Your task to perform on an android device: Play the latest video from the Huffington Post Image 0: 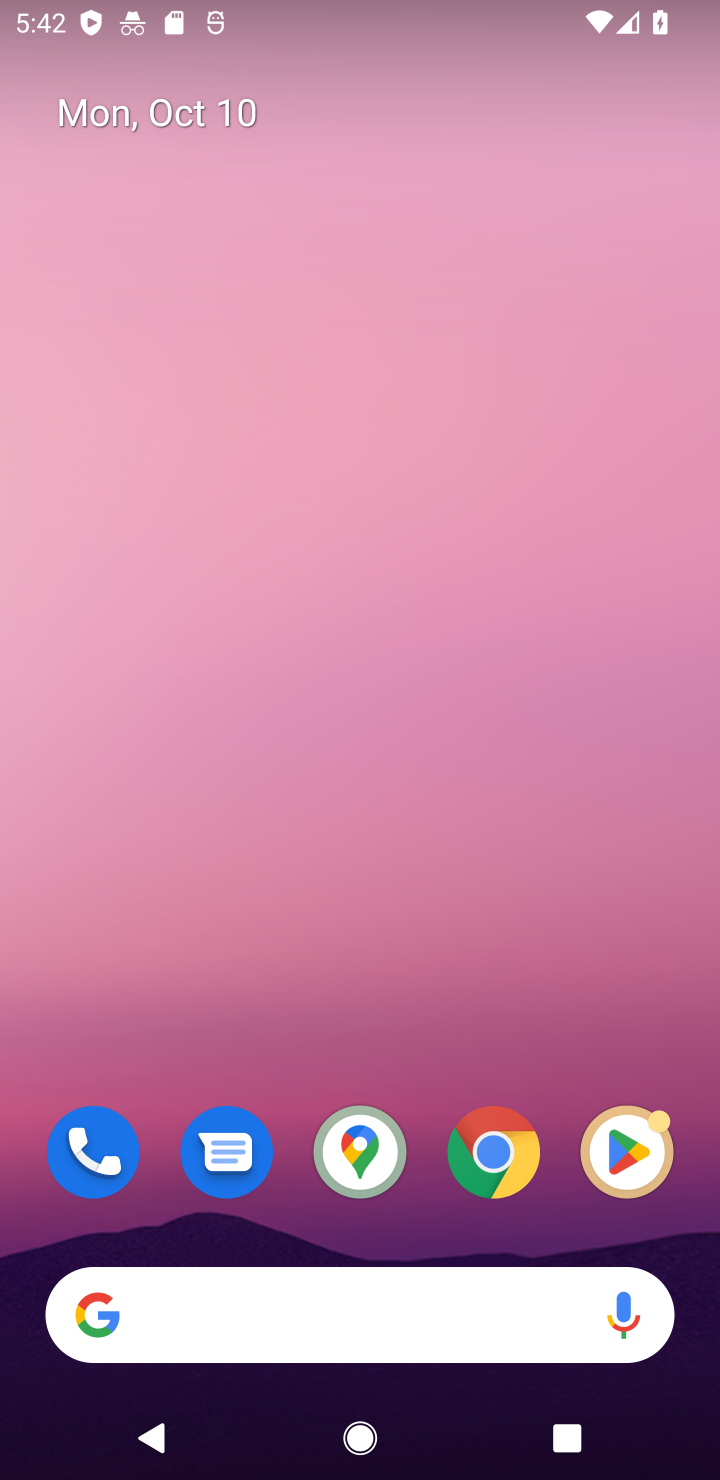
Step 0: drag from (364, 1241) to (333, 161)
Your task to perform on an android device: Play the latest video from the Huffington Post Image 1: 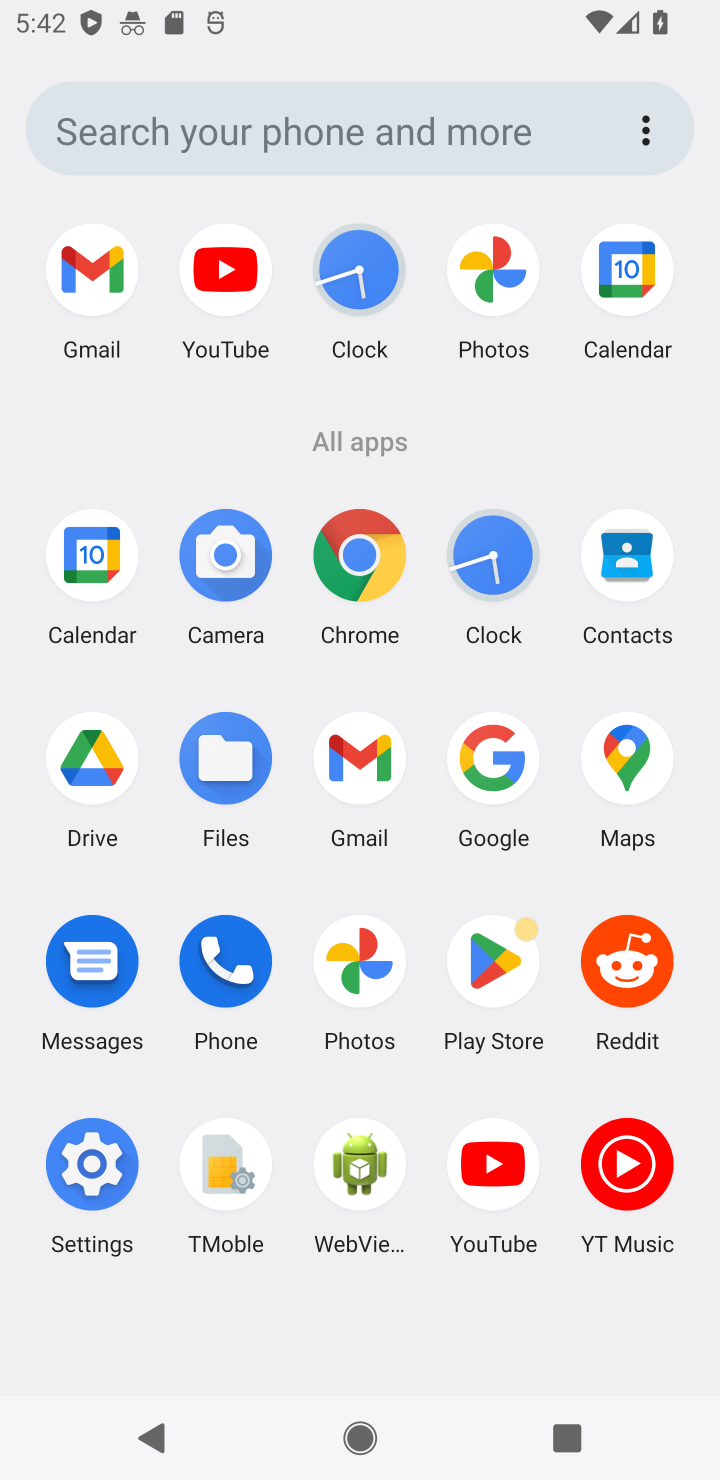
Step 1: click (224, 268)
Your task to perform on an android device: Play the latest video from the Huffington Post Image 2: 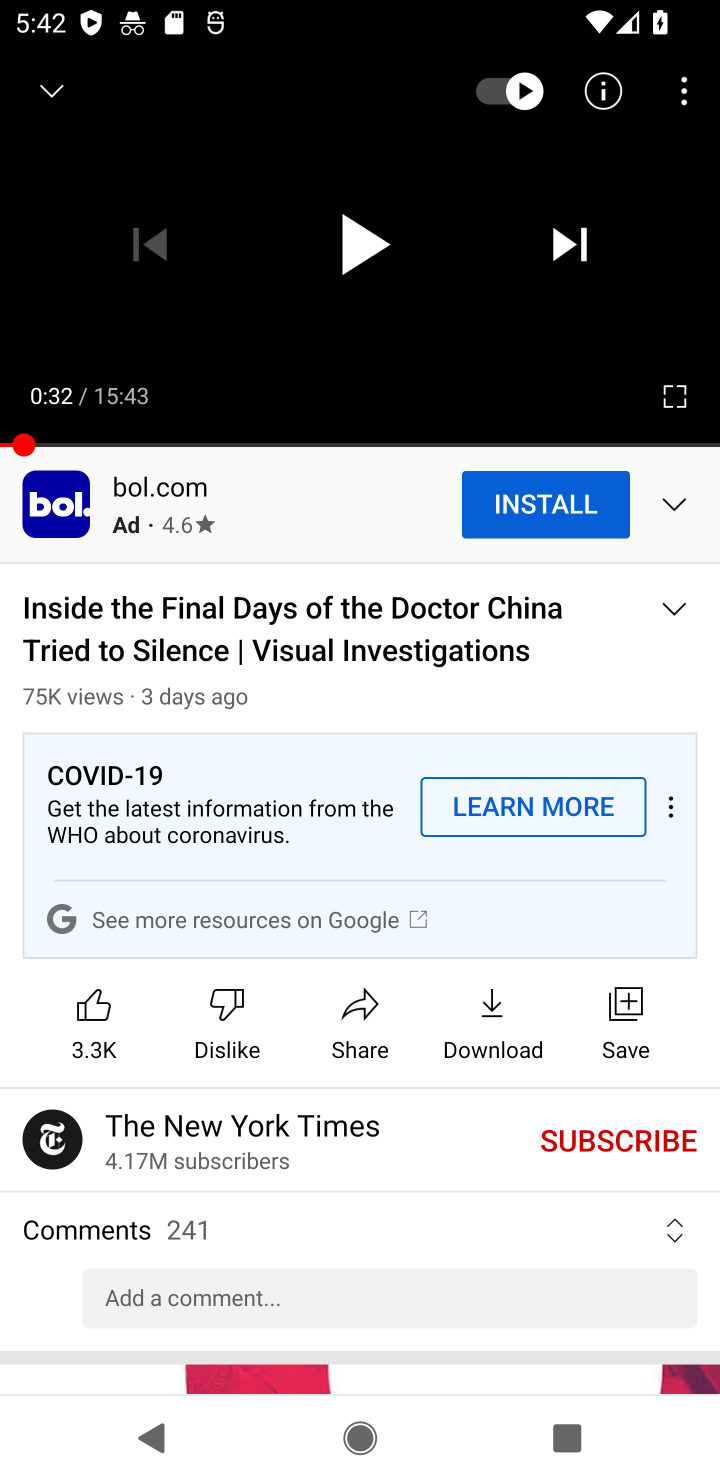
Step 2: press back button
Your task to perform on an android device: Play the latest video from the Huffington Post Image 3: 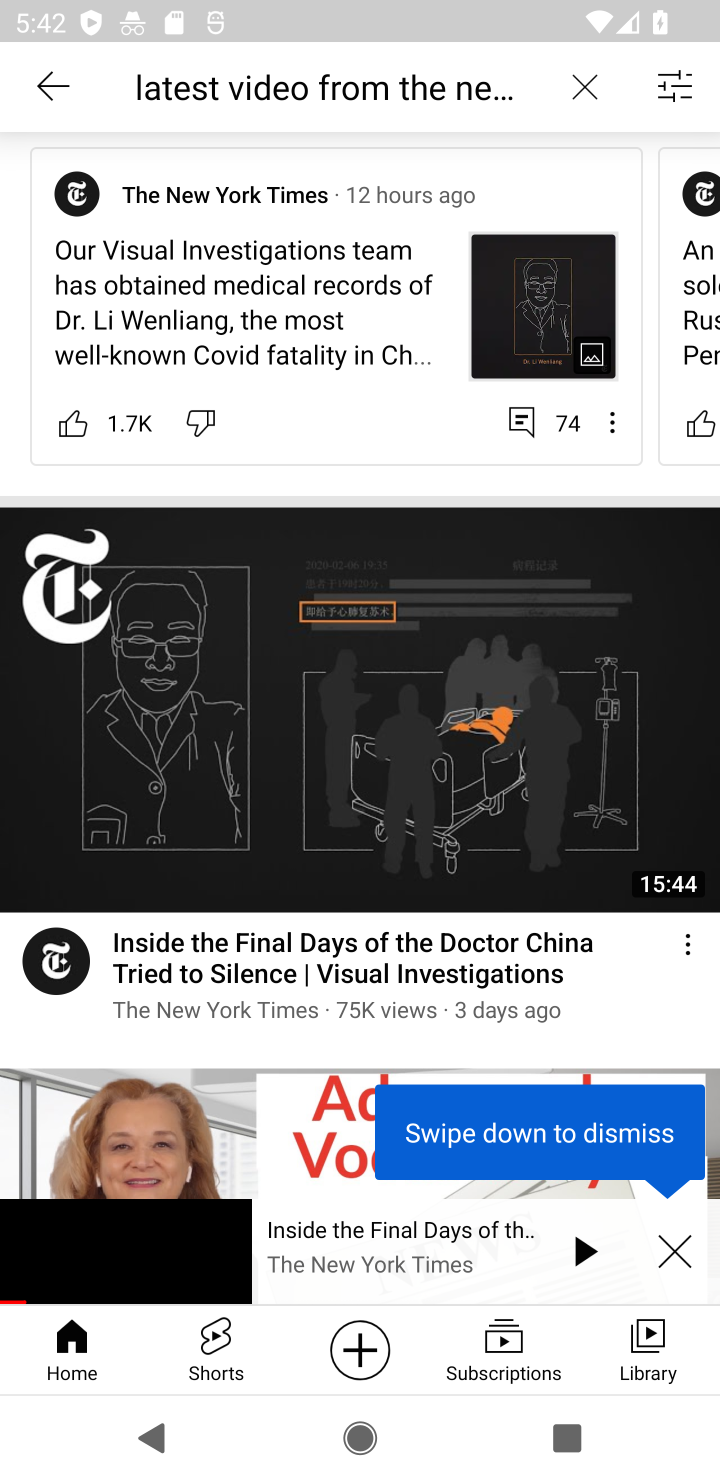
Step 3: click (675, 1253)
Your task to perform on an android device: Play the latest video from the Huffington Post Image 4: 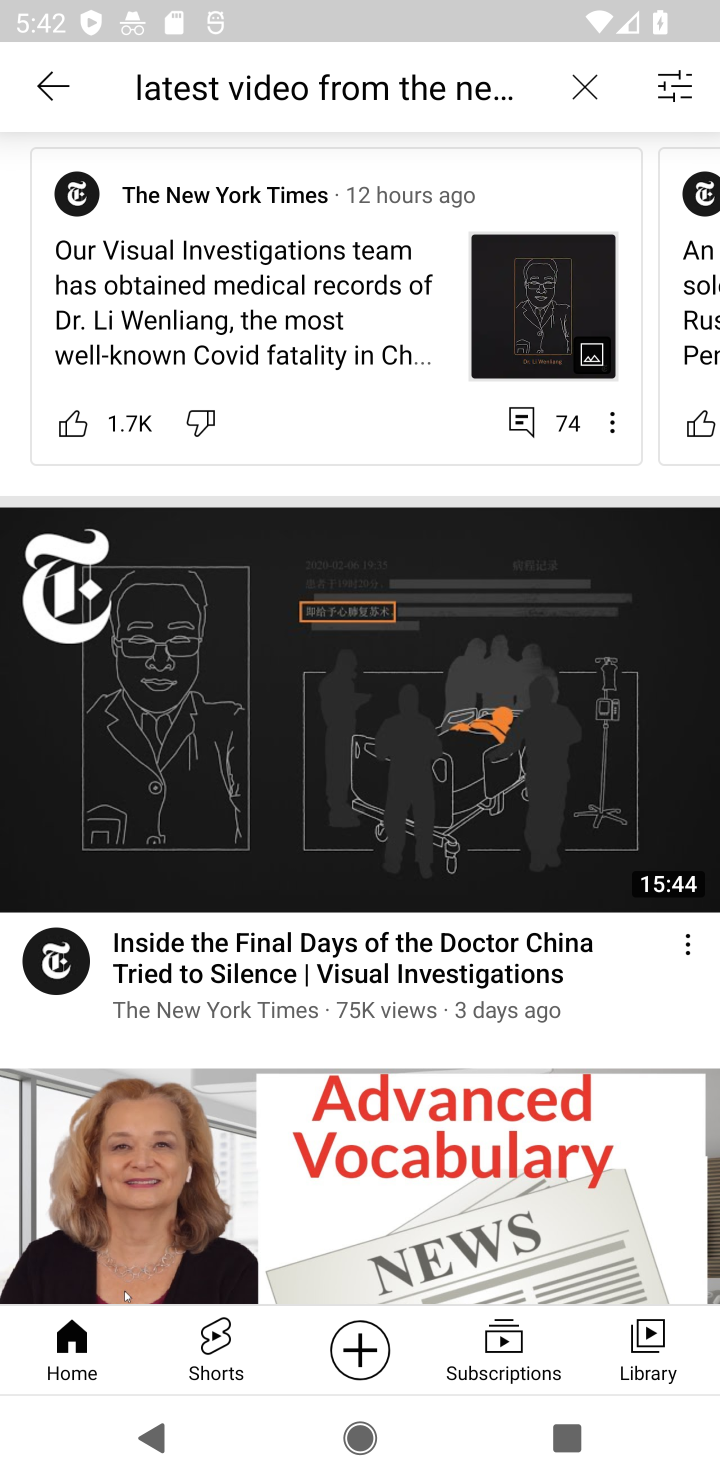
Step 4: click (585, 77)
Your task to perform on an android device: Play the latest video from the Huffington Post Image 5: 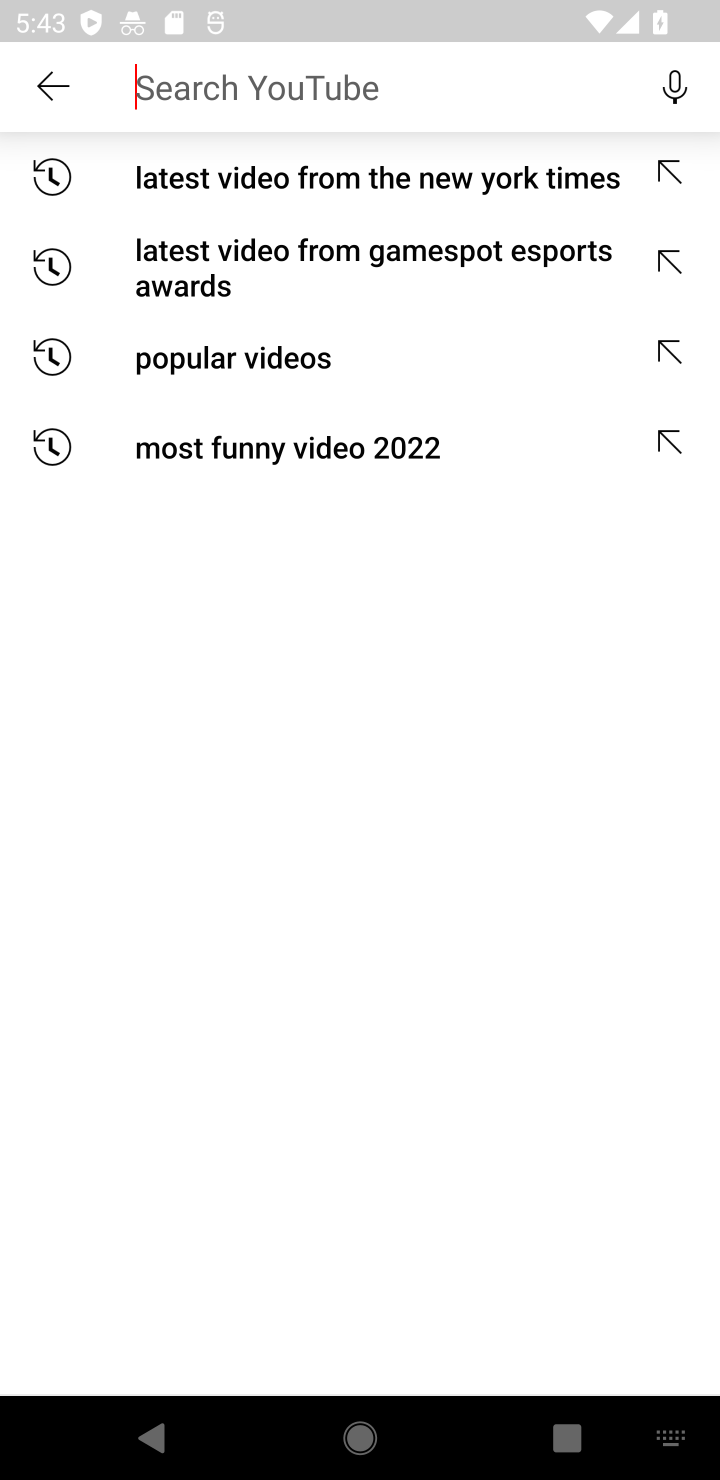
Step 5: type "latest video from the Huffington Post"
Your task to perform on an android device: Play the latest video from the Huffington Post Image 6: 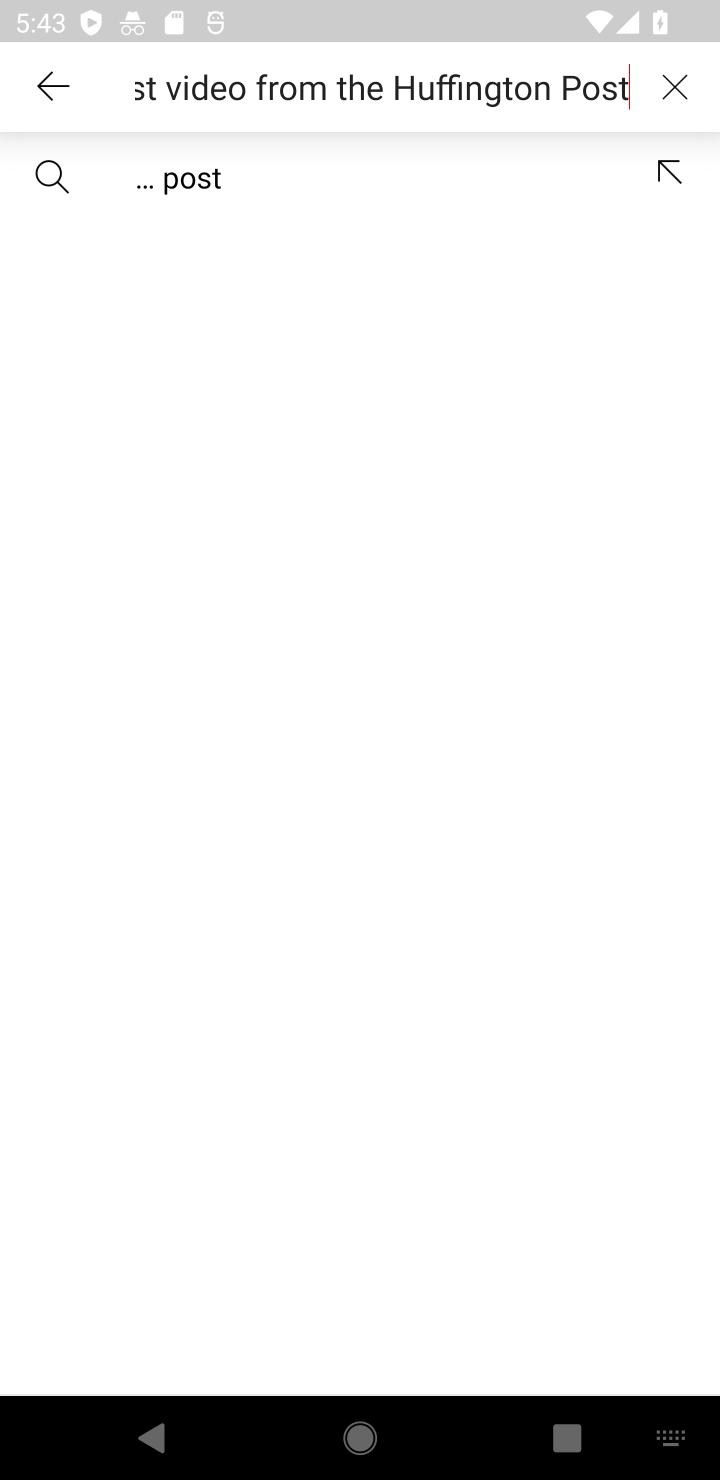
Step 6: type ""
Your task to perform on an android device: Play the latest video from the Huffington Post Image 7: 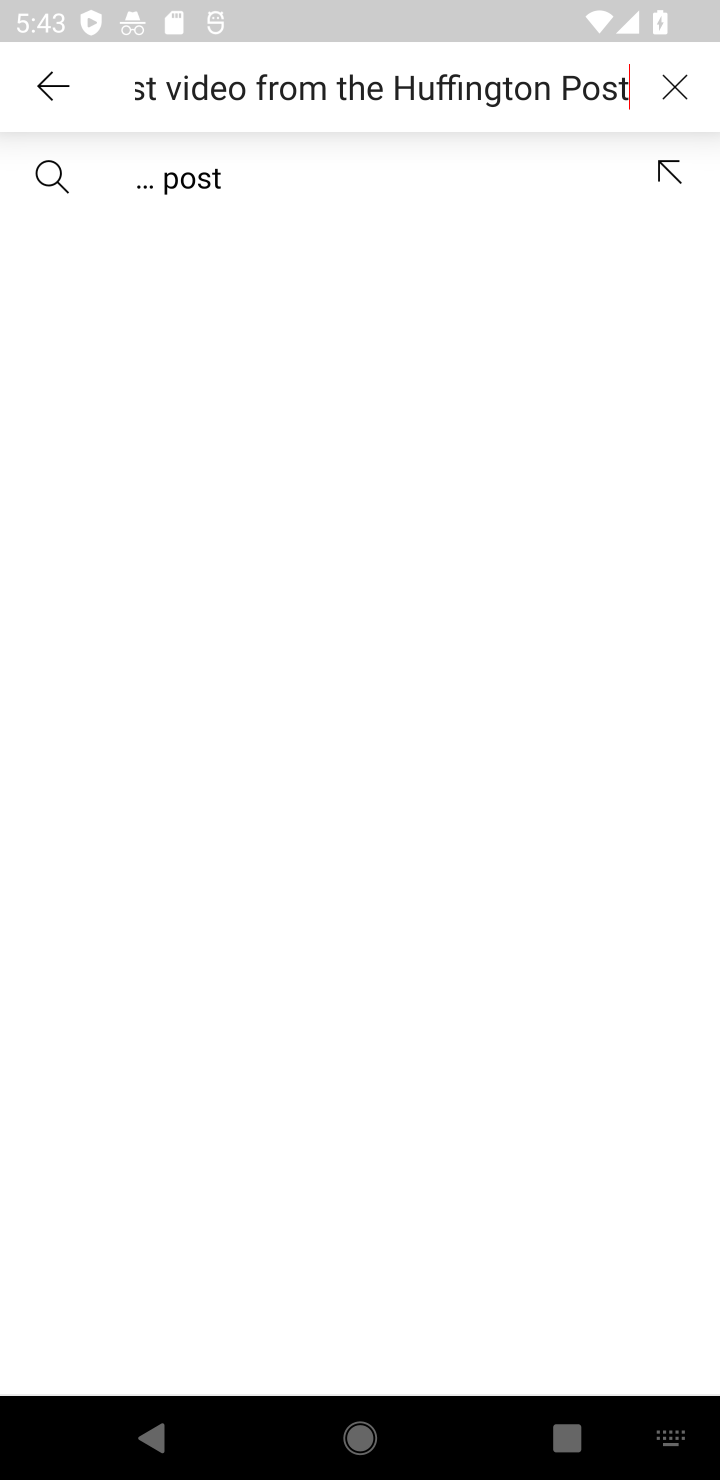
Step 7: click (198, 193)
Your task to perform on an android device: Play the latest video from the Huffington Post Image 8: 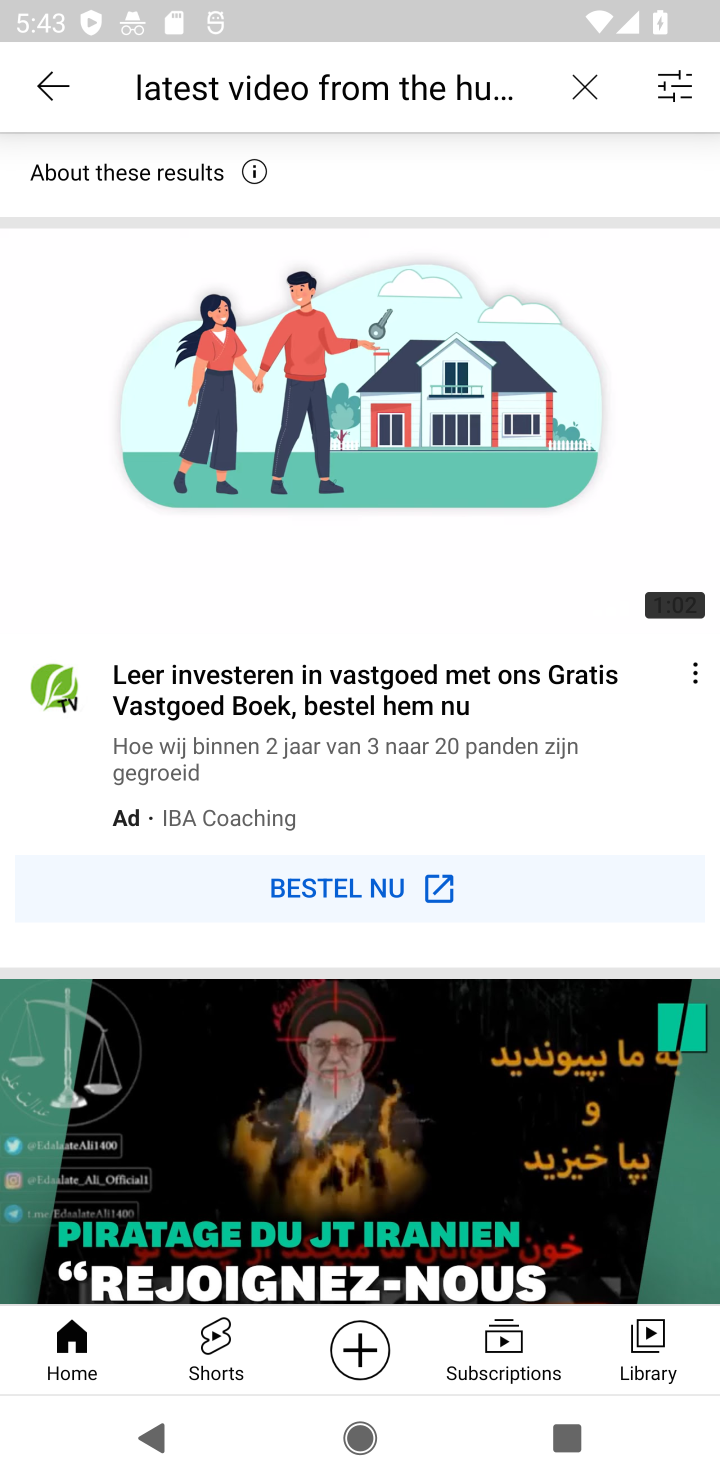
Step 8: drag from (181, 1094) to (431, 634)
Your task to perform on an android device: Play the latest video from the Huffington Post Image 9: 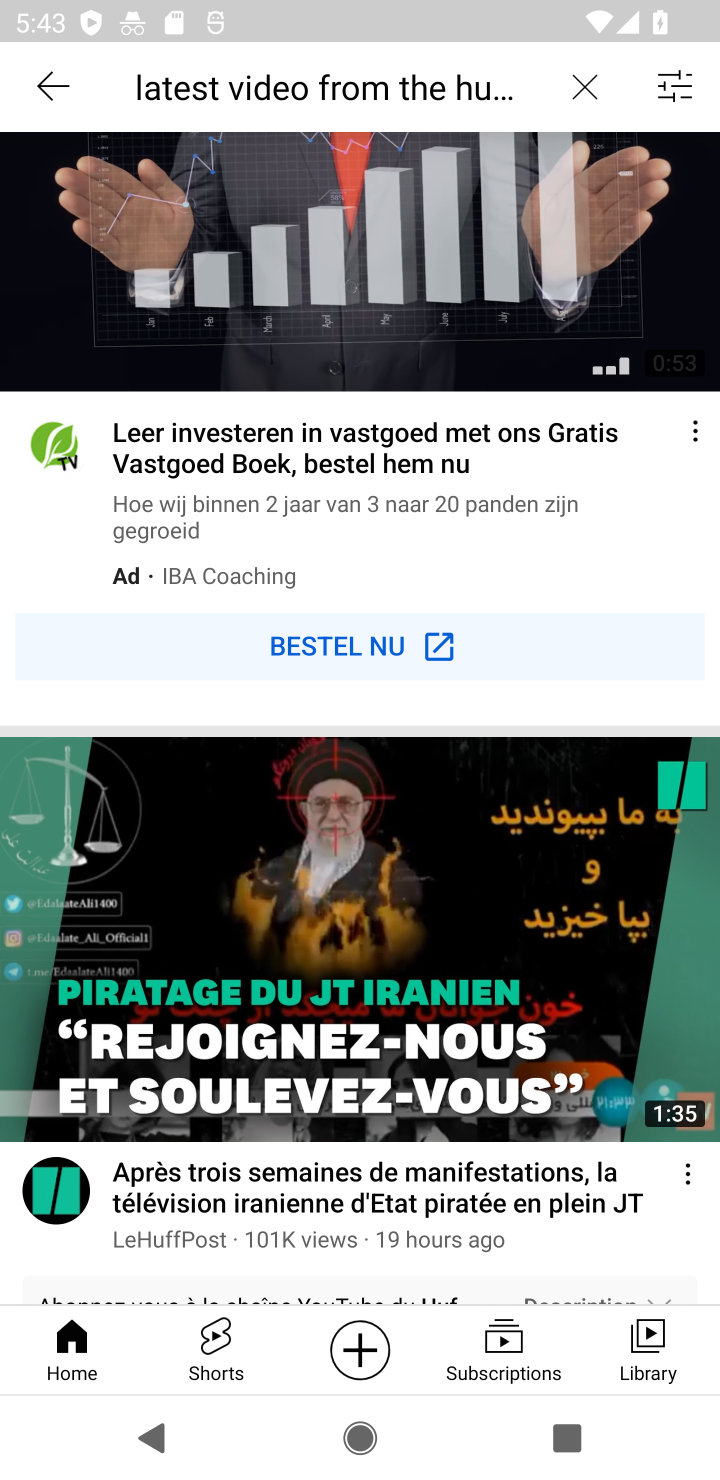
Step 9: drag from (388, 1193) to (497, 832)
Your task to perform on an android device: Play the latest video from the Huffington Post Image 10: 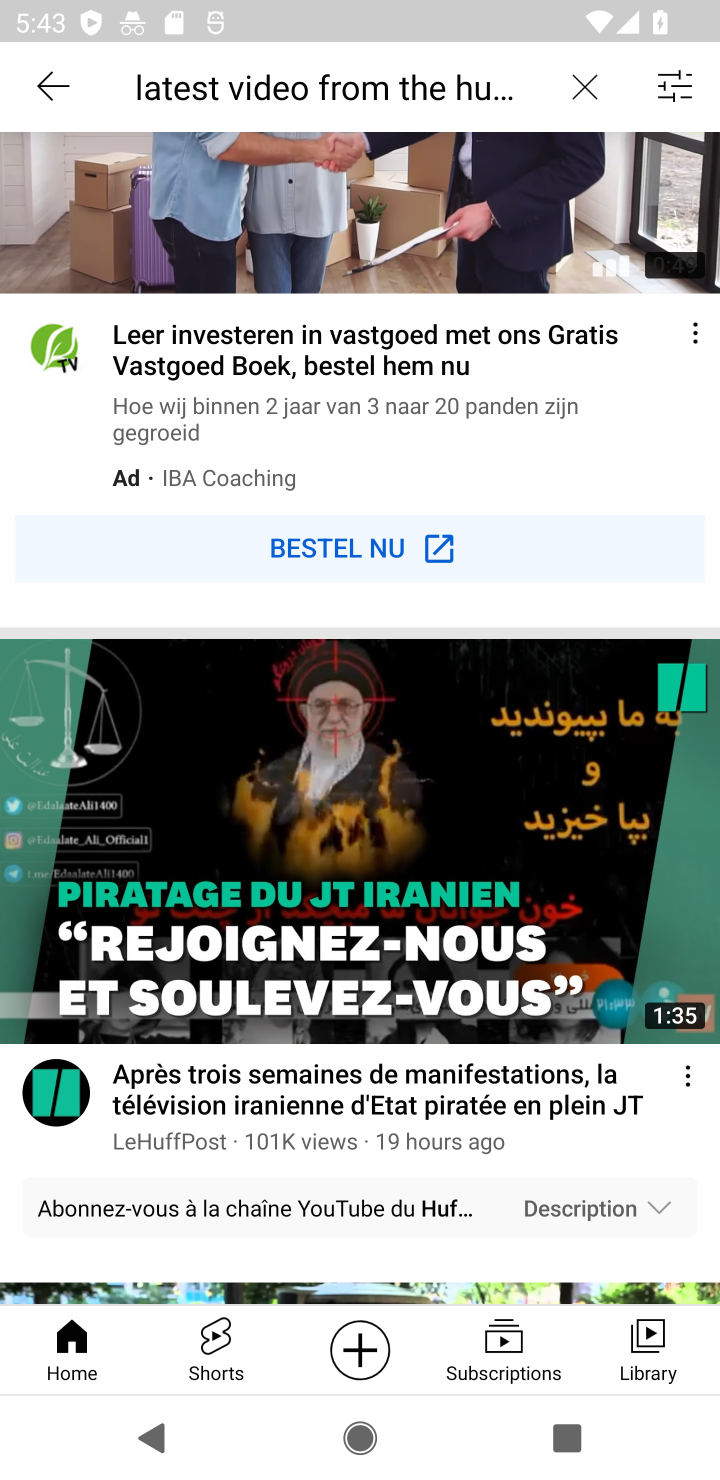
Step 10: drag from (307, 1202) to (476, 843)
Your task to perform on an android device: Play the latest video from the Huffington Post Image 11: 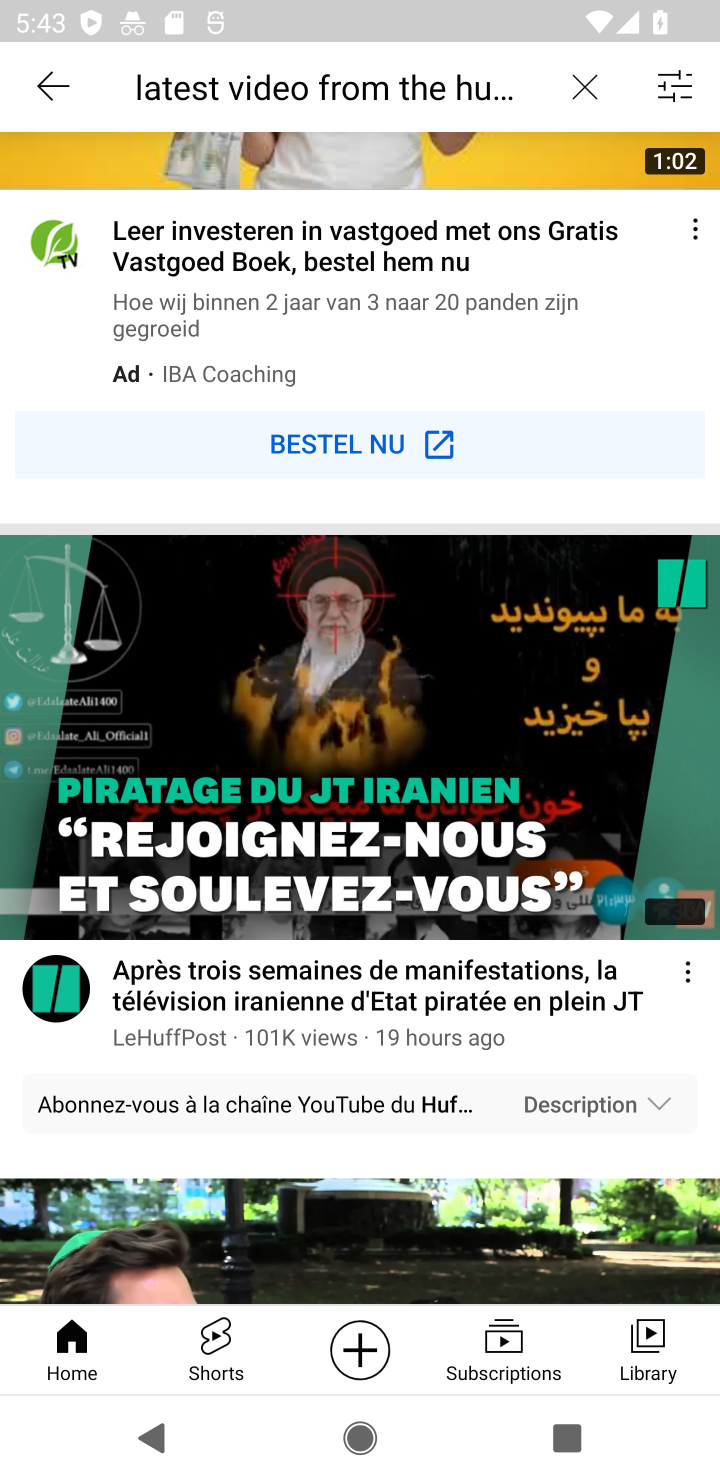
Step 11: drag from (446, 867) to (485, 806)
Your task to perform on an android device: Play the latest video from the Huffington Post Image 12: 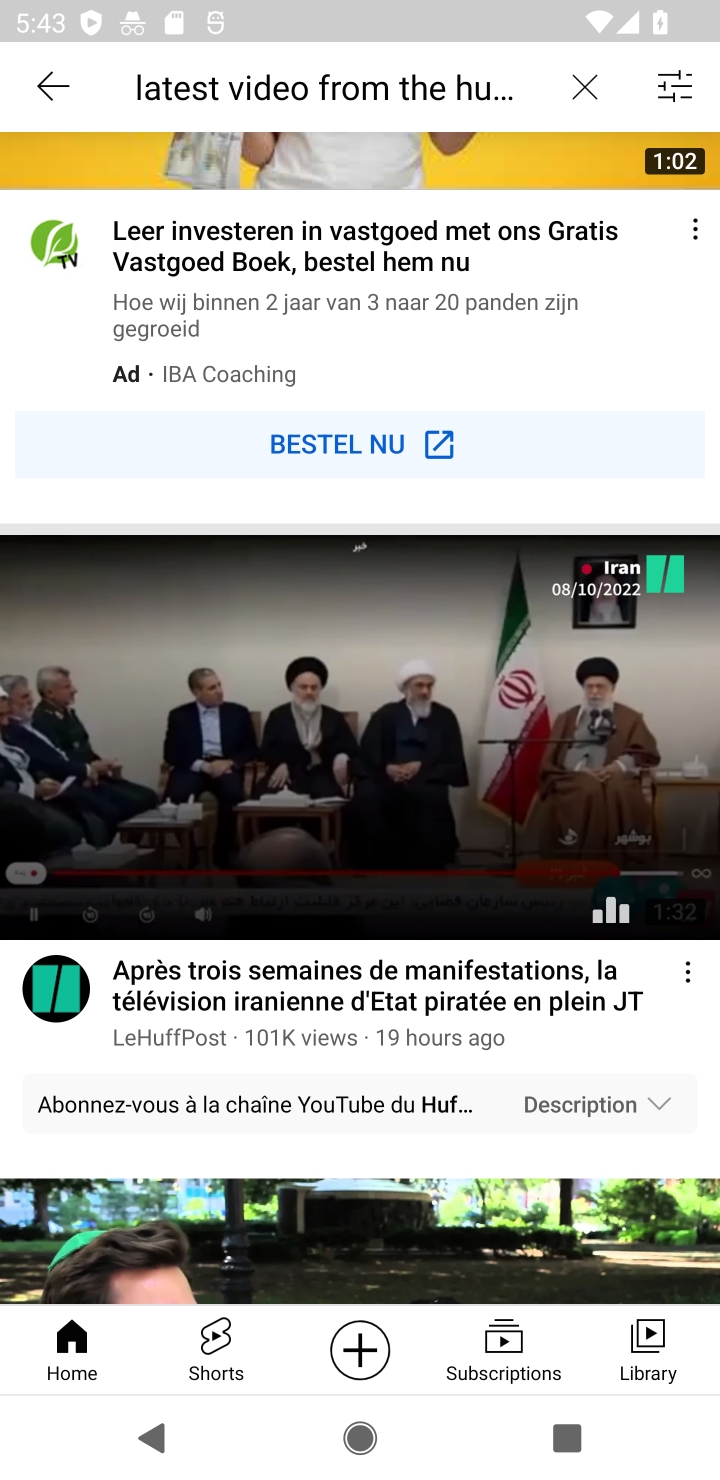
Step 12: drag from (256, 1205) to (415, 414)
Your task to perform on an android device: Play the latest video from the Huffington Post Image 13: 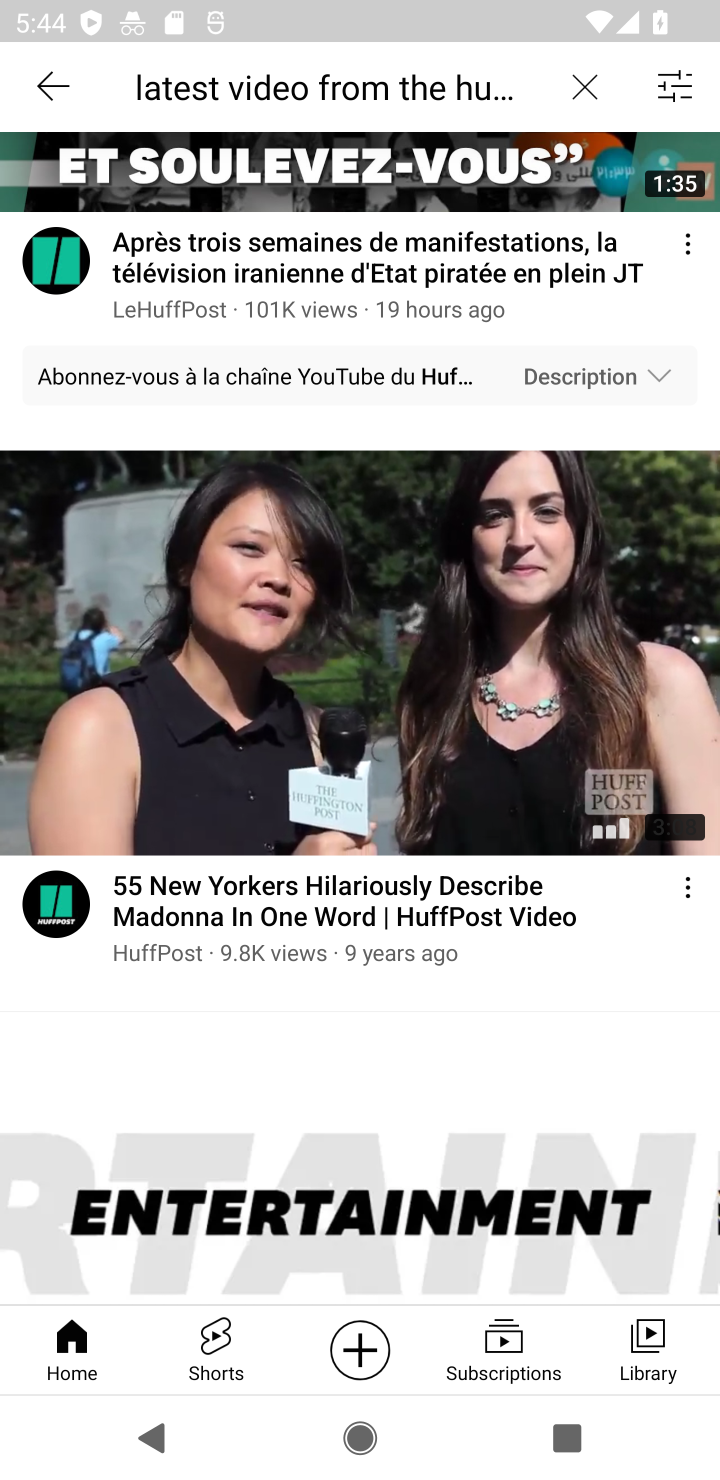
Step 13: click (513, 709)
Your task to perform on an android device: Play the latest video from the Huffington Post Image 14: 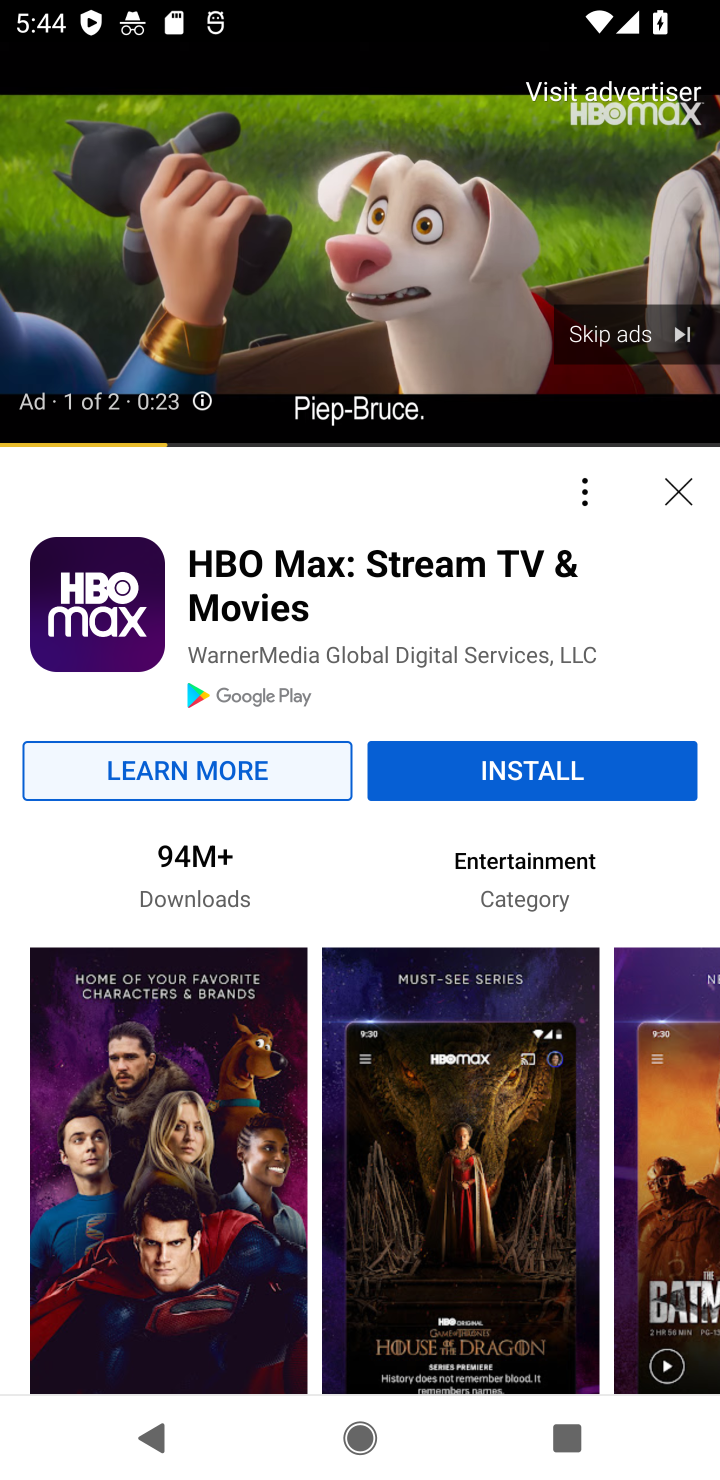
Step 14: click (662, 338)
Your task to perform on an android device: Play the latest video from the Huffington Post Image 15: 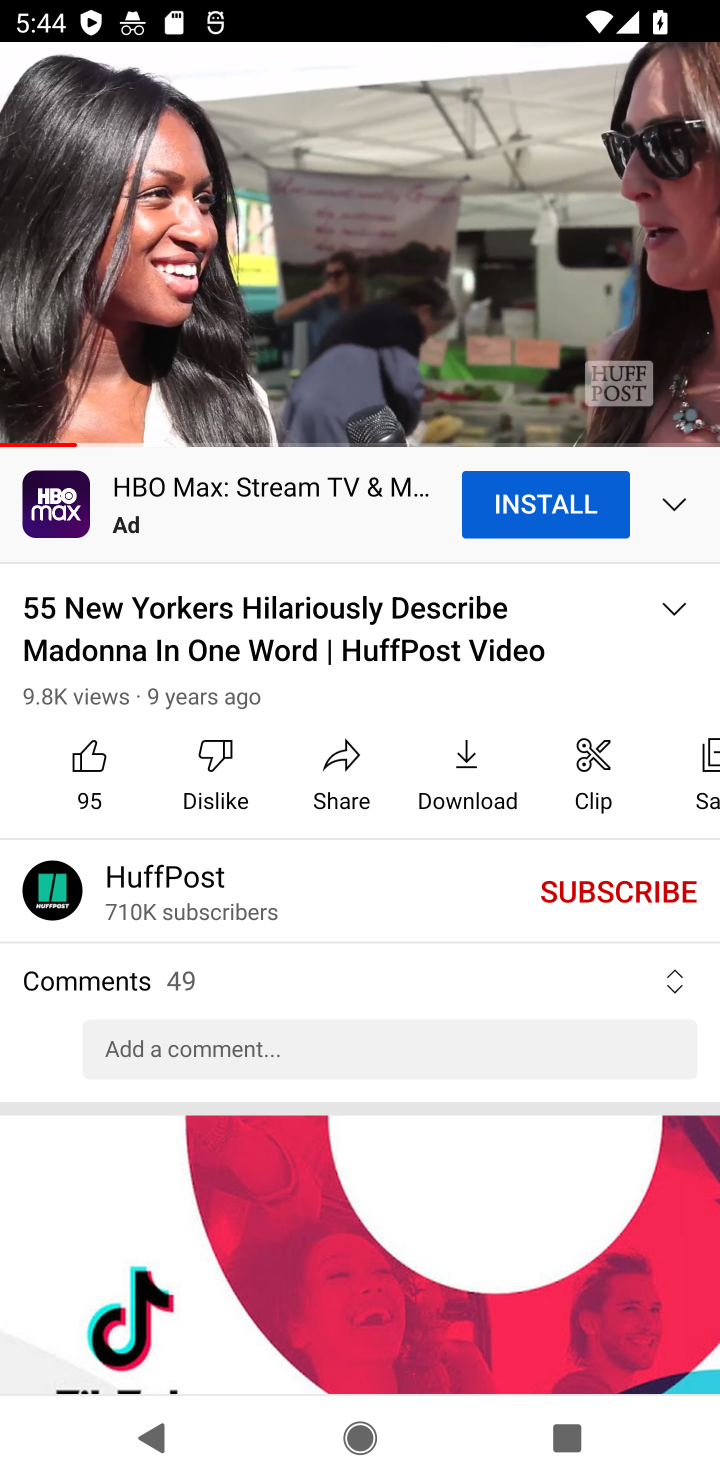
Step 15: task complete